Your task to perform on an android device: Open the Play Movies app and select the watchlist tab. Image 0: 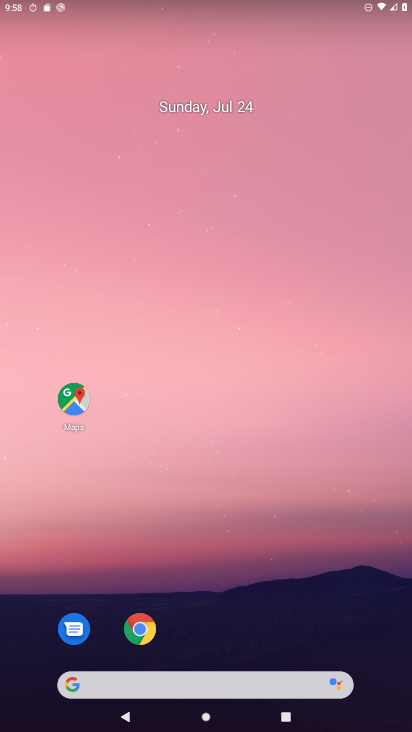
Step 0: drag from (172, 643) to (203, 213)
Your task to perform on an android device: Open the Play Movies app and select the watchlist tab. Image 1: 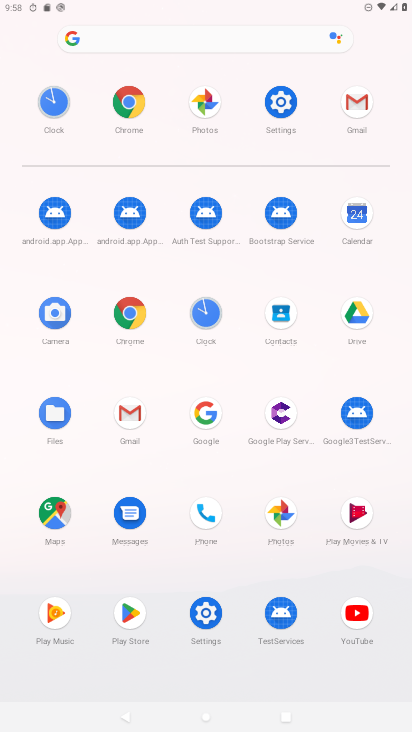
Step 1: click (351, 538)
Your task to perform on an android device: Open the Play Movies app and select the watchlist tab. Image 2: 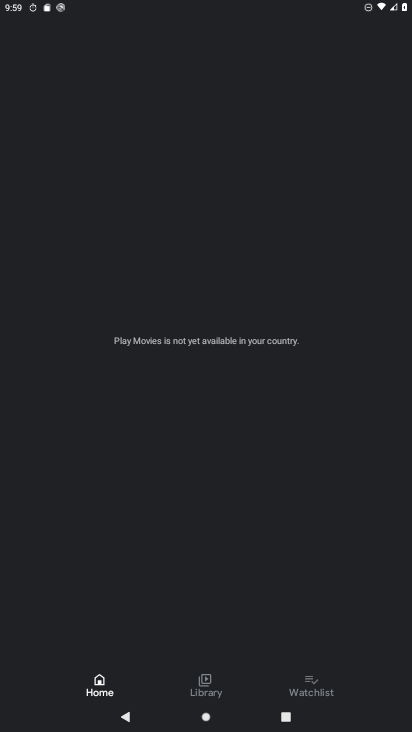
Step 2: click (316, 692)
Your task to perform on an android device: Open the Play Movies app and select the watchlist tab. Image 3: 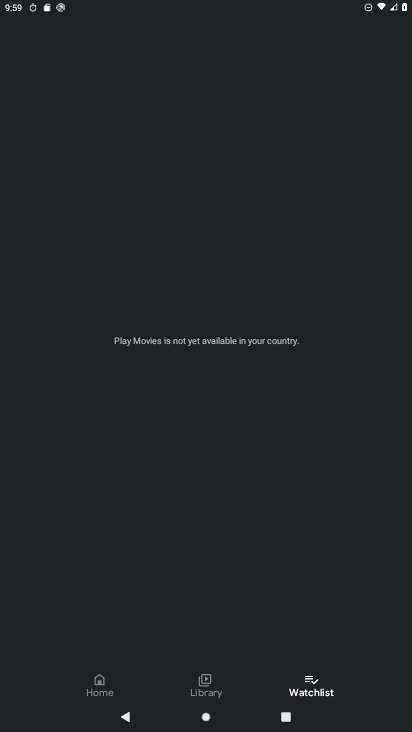
Step 3: task complete